Your task to perform on an android device: change the clock display to show seconds Image 0: 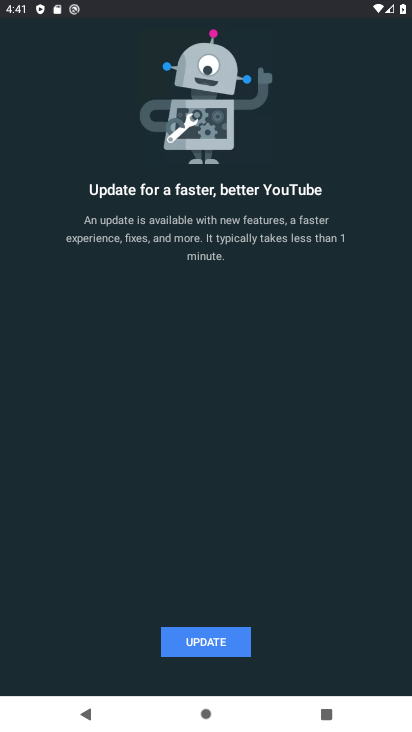
Step 0: press home button
Your task to perform on an android device: change the clock display to show seconds Image 1: 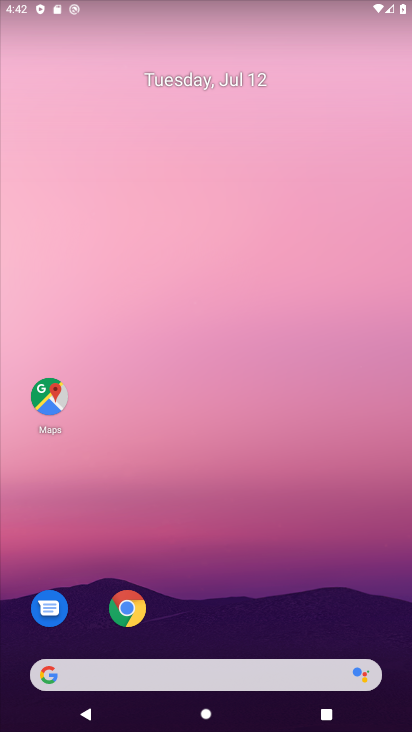
Step 1: drag from (170, 632) to (216, 78)
Your task to perform on an android device: change the clock display to show seconds Image 2: 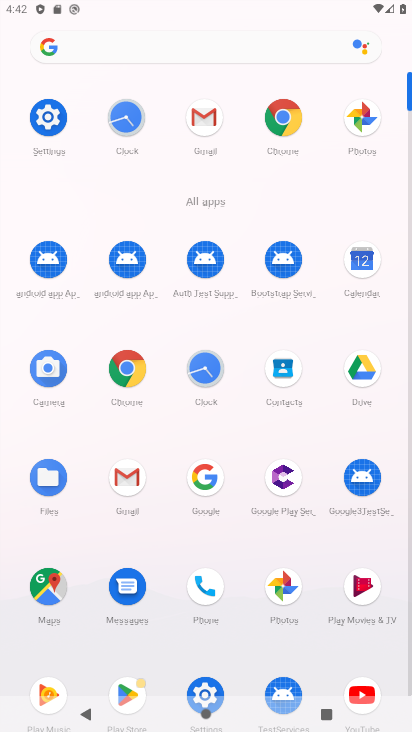
Step 2: click (130, 108)
Your task to perform on an android device: change the clock display to show seconds Image 3: 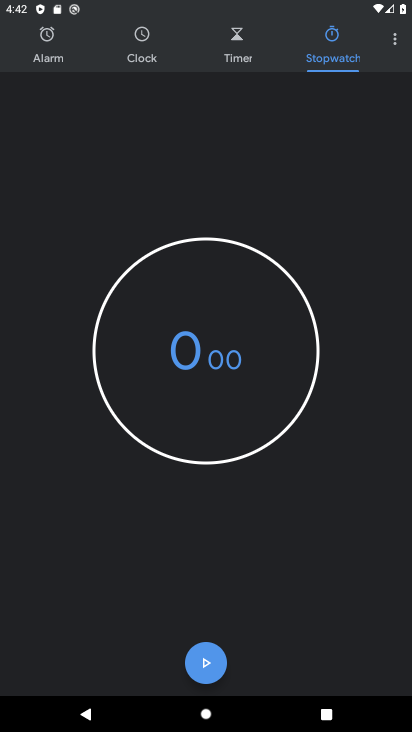
Step 3: click (396, 38)
Your task to perform on an android device: change the clock display to show seconds Image 4: 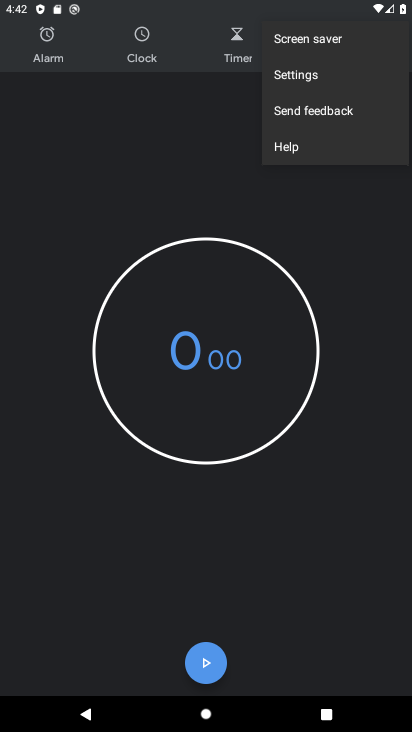
Step 4: click (345, 71)
Your task to perform on an android device: change the clock display to show seconds Image 5: 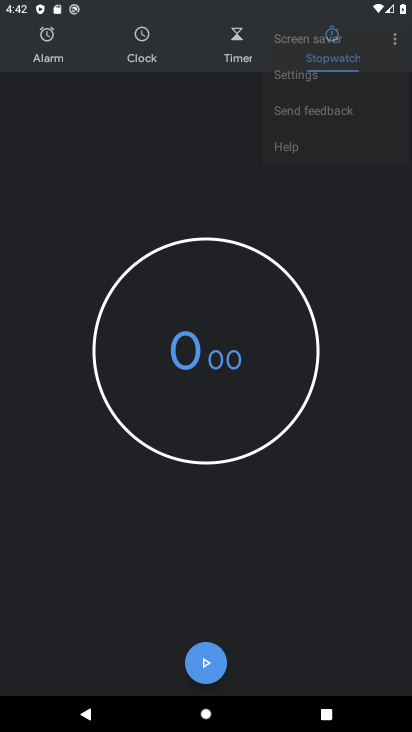
Step 5: click (319, 75)
Your task to perform on an android device: change the clock display to show seconds Image 6: 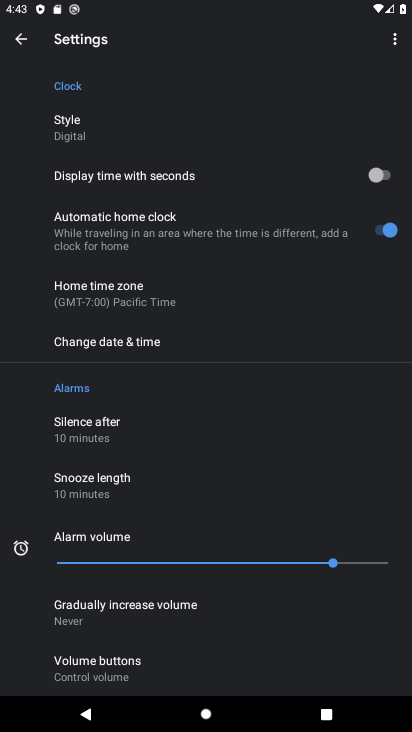
Step 6: click (383, 174)
Your task to perform on an android device: change the clock display to show seconds Image 7: 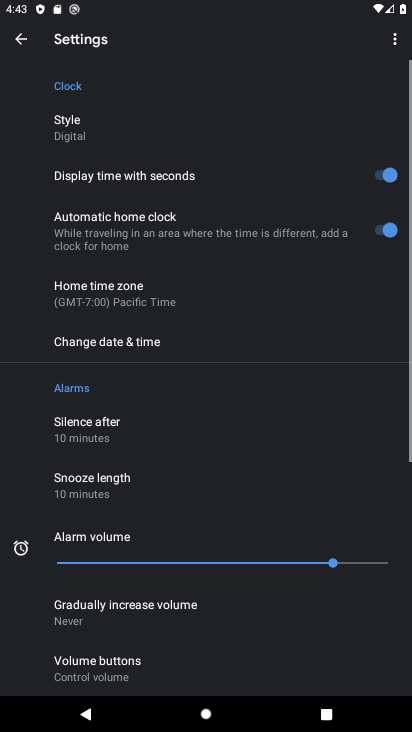
Step 7: task complete